Your task to perform on an android device: remove spam from my inbox in the gmail app Image 0: 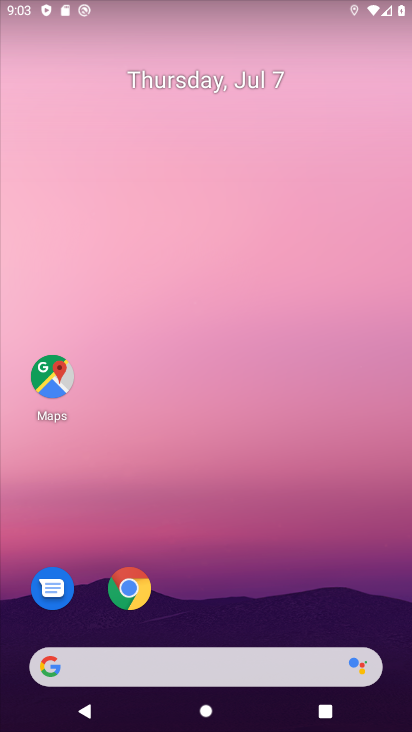
Step 0: press back button
Your task to perform on an android device: remove spam from my inbox in the gmail app Image 1: 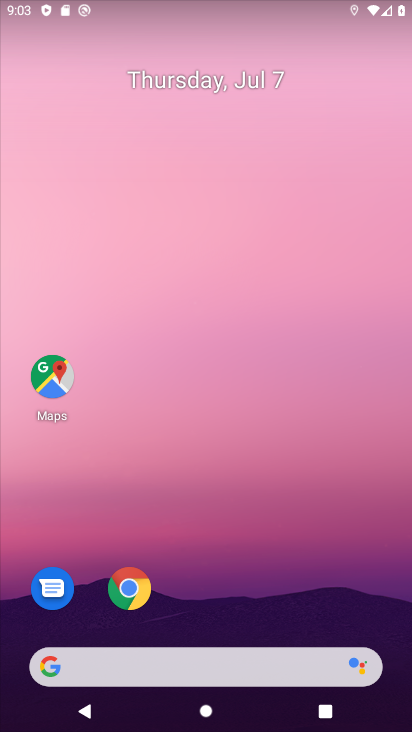
Step 1: click (182, 186)
Your task to perform on an android device: remove spam from my inbox in the gmail app Image 2: 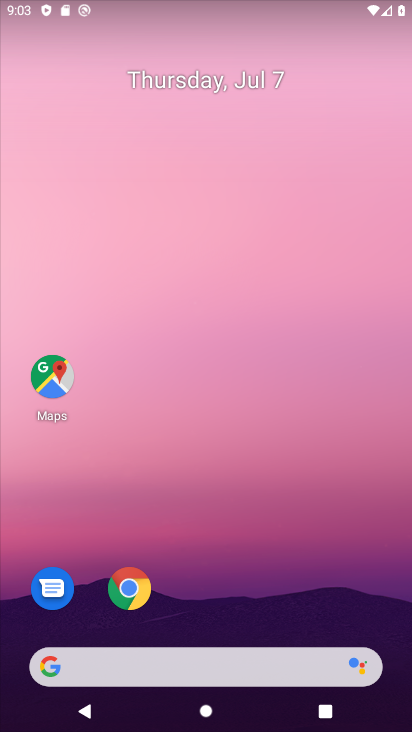
Step 2: drag from (251, 452) to (200, 74)
Your task to perform on an android device: remove spam from my inbox in the gmail app Image 3: 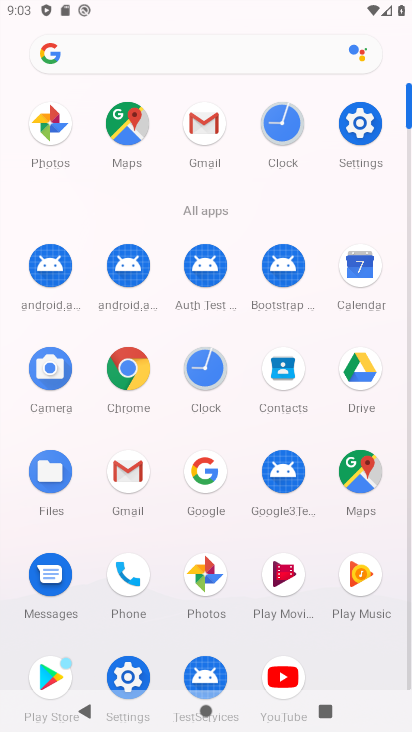
Step 3: click (196, 122)
Your task to perform on an android device: remove spam from my inbox in the gmail app Image 4: 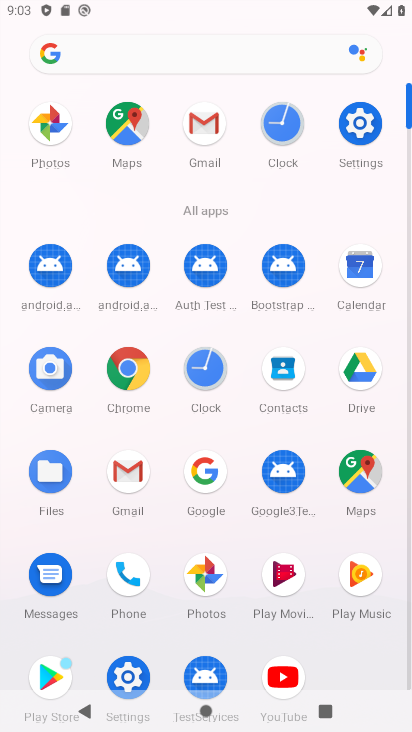
Step 4: click (196, 122)
Your task to perform on an android device: remove spam from my inbox in the gmail app Image 5: 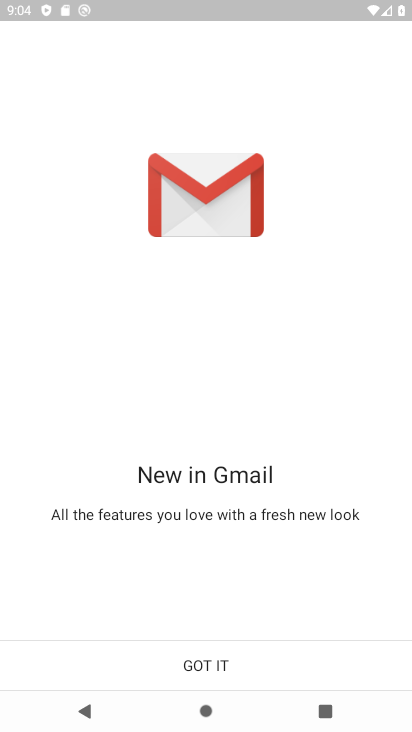
Step 5: click (205, 655)
Your task to perform on an android device: remove spam from my inbox in the gmail app Image 6: 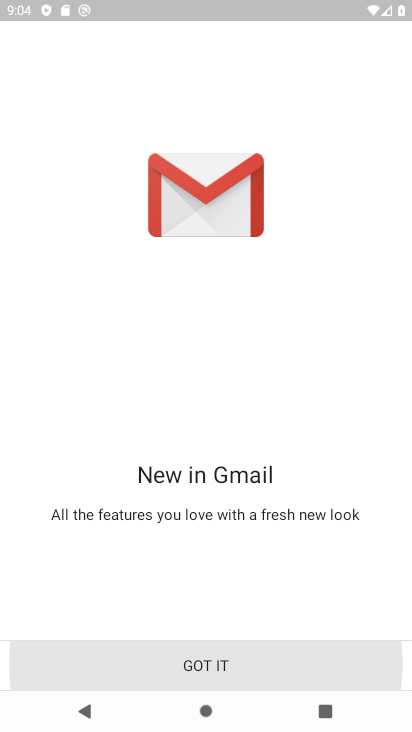
Step 6: click (205, 655)
Your task to perform on an android device: remove spam from my inbox in the gmail app Image 7: 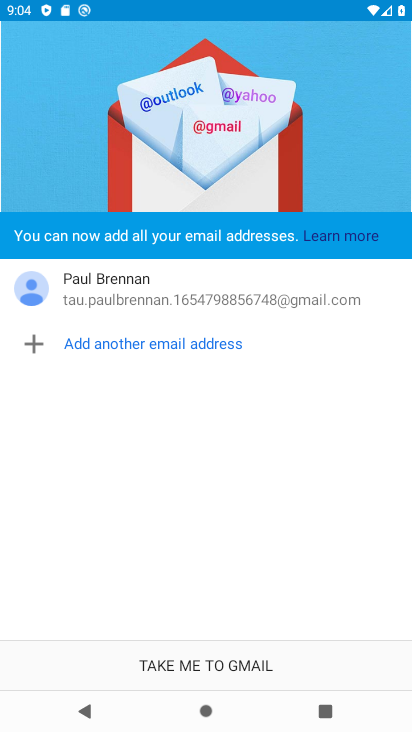
Step 7: click (210, 653)
Your task to perform on an android device: remove spam from my inbox in the gmail app Image 8: 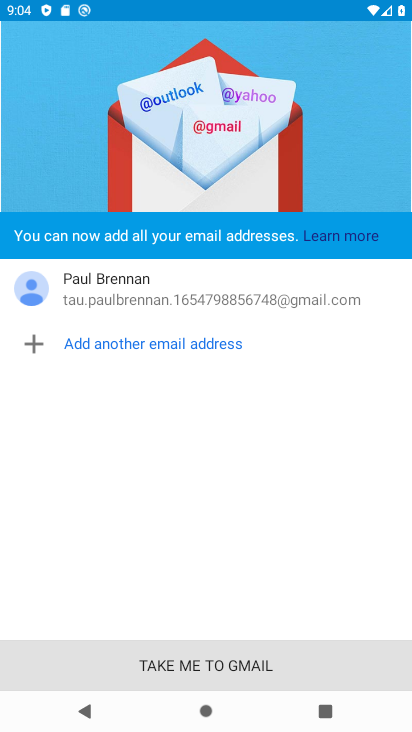
Step 8: click (211, 654)
Your task to perform on an android device: remove spam from my inbox in the gmail app Image 9: 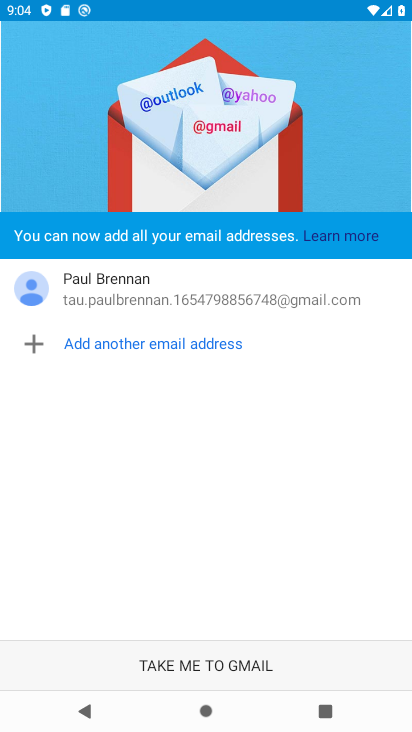
Step 9: click (212, 654)
Your task to perform on an android device: remove spam from my inbox in the gmail app Image 10: 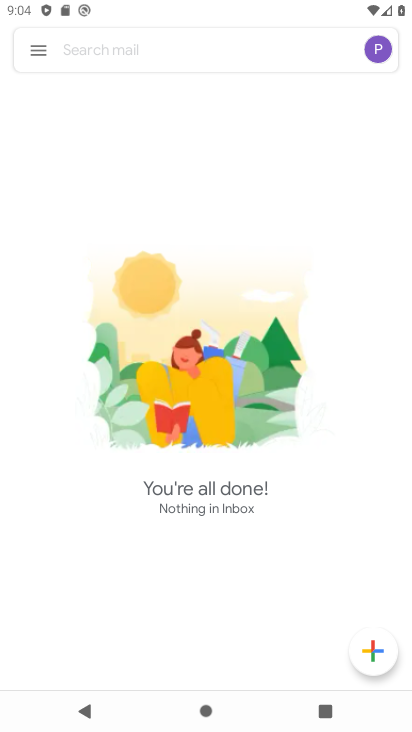
Step 10: click (31, 48)
Your task to perform on an android device: remove spam from my inbox in the gmail app Image 11: 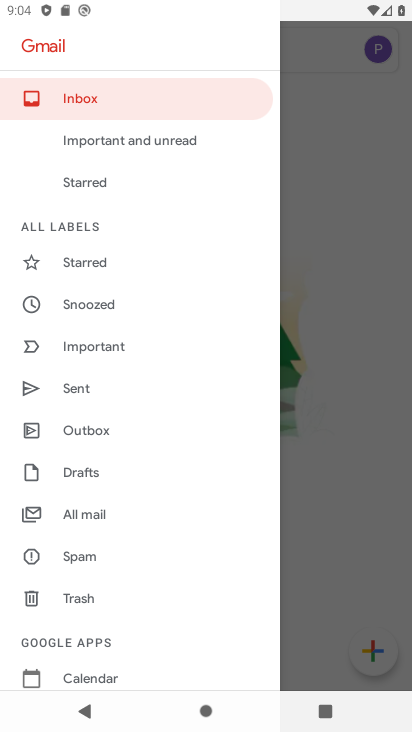
Step 11: click (94, 549)
Your task to perform on an android device: remove spam from my inbox in the gmail app Image 12: 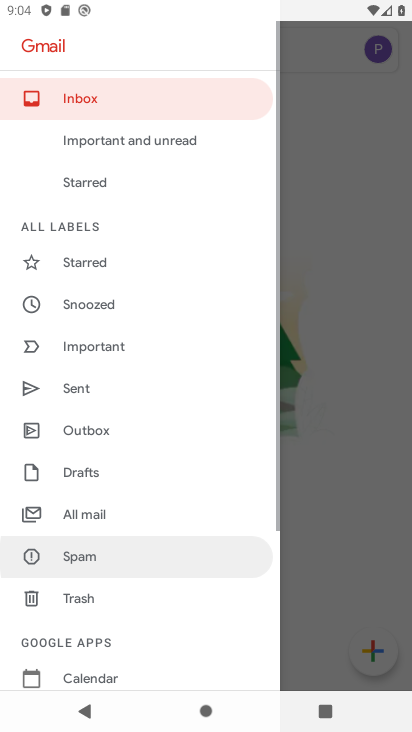
Step 12: click (94, 545)
Your task to perform on an android device: remove spam from my inbox in the gmail app Image 13: 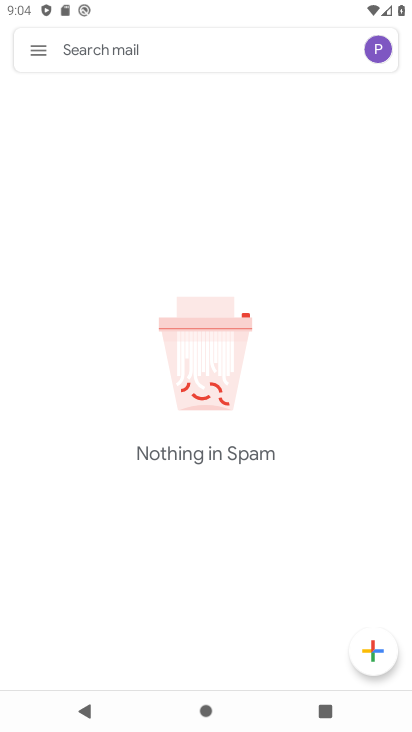
Step 13: task complete